Your task to perform on an android device: Open the calendar and show me this week's events? Image 0: 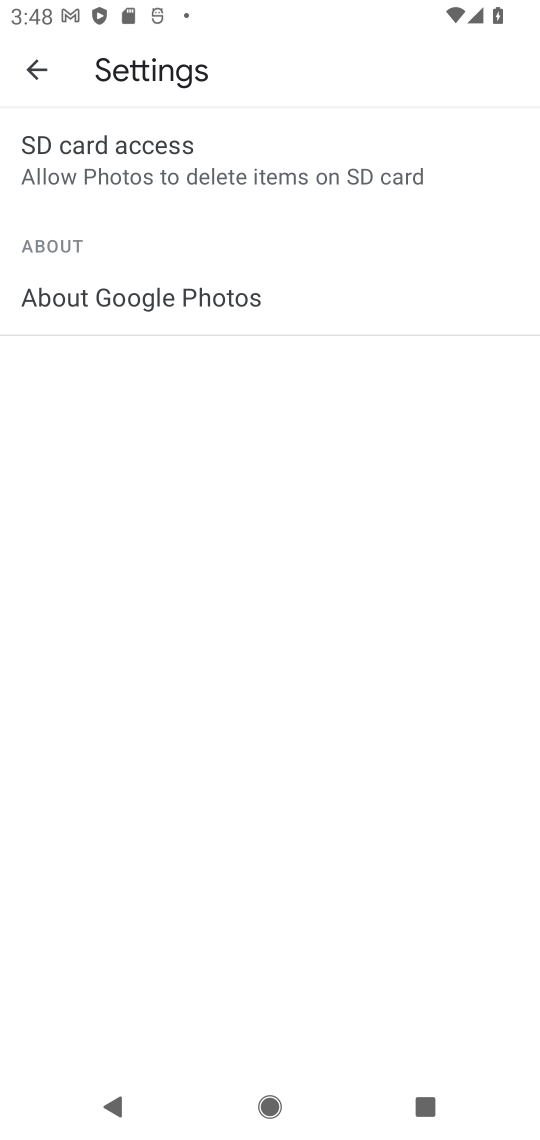
Step 0: press home button
Your task to perform on an android device: Open the calendar and show me this week's events? Image 1: 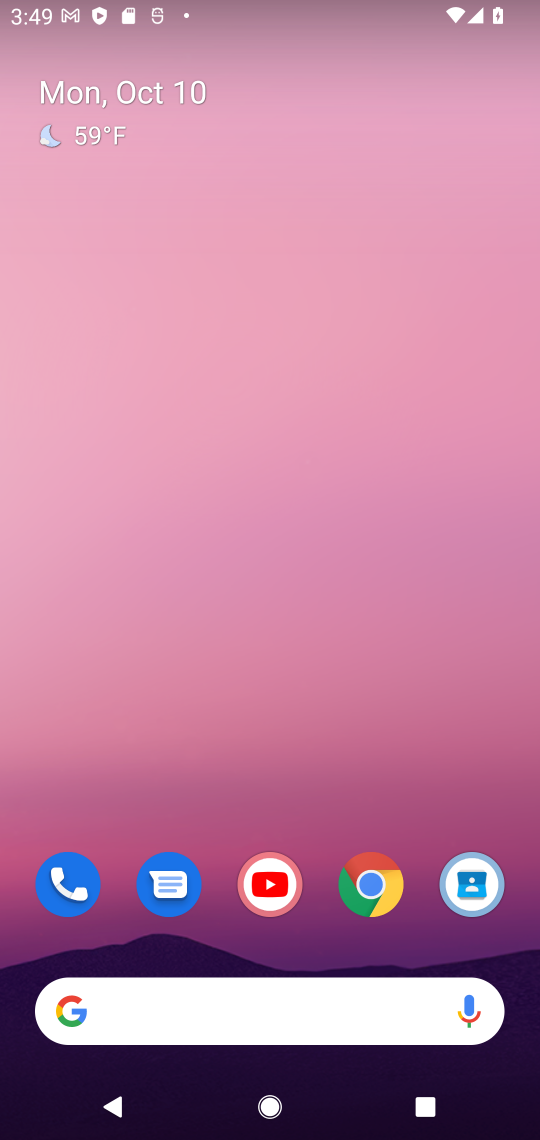
Step 1: drag from (328, 963) to (349, 6)
Your task to perform on an android device: Open the calendar and show me this week's events? Image 2: 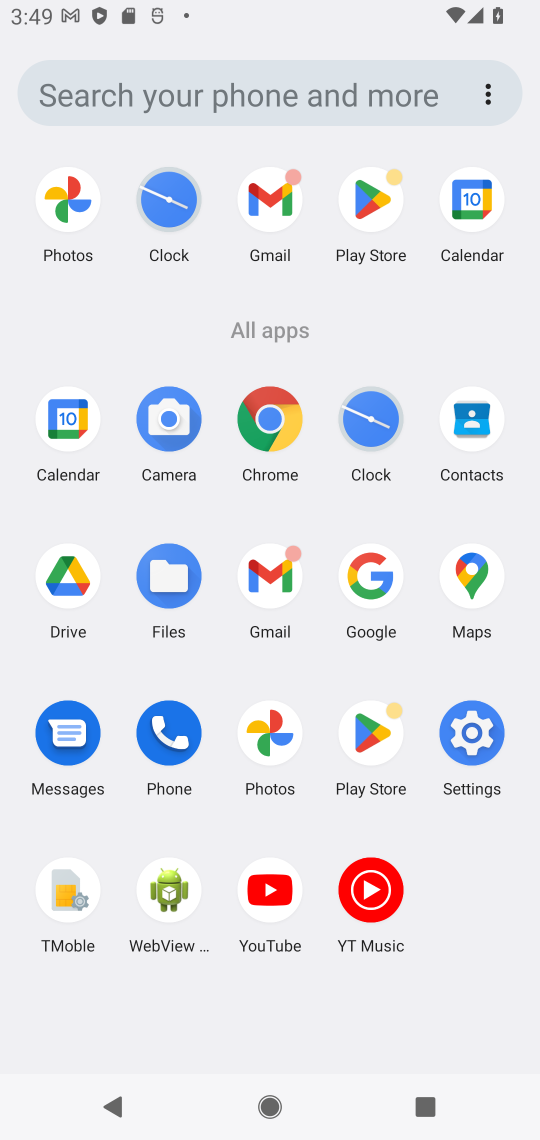
Step 2: click (476, 205)
Your task to perform on an android device: Open the calendar and show me this week's events? Image 3: 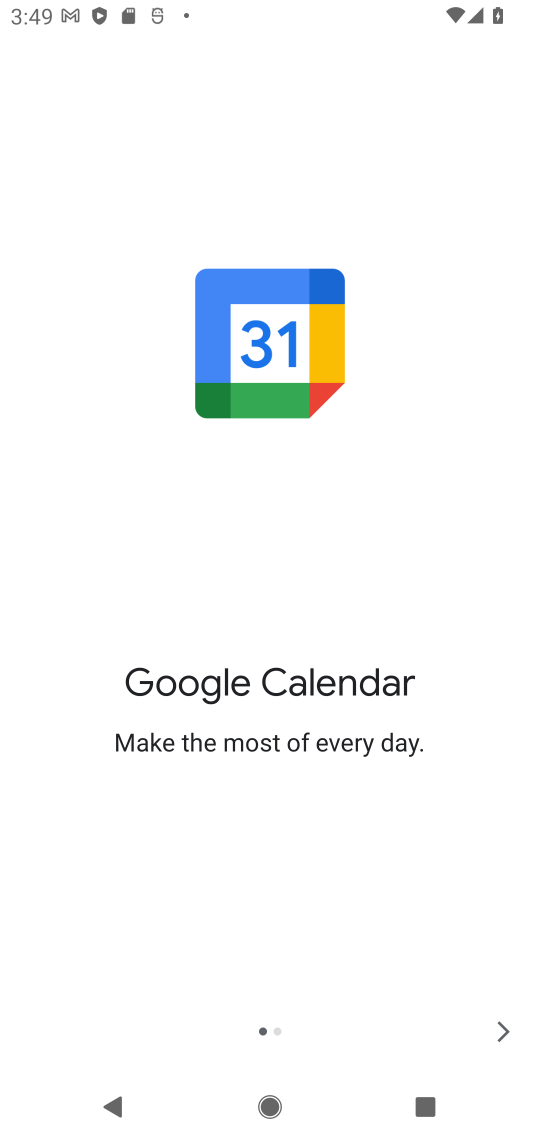
Step 3: click (512, 1039)
Your task to perform on an android device: Open the calendar and show me this week's events? Image 4: 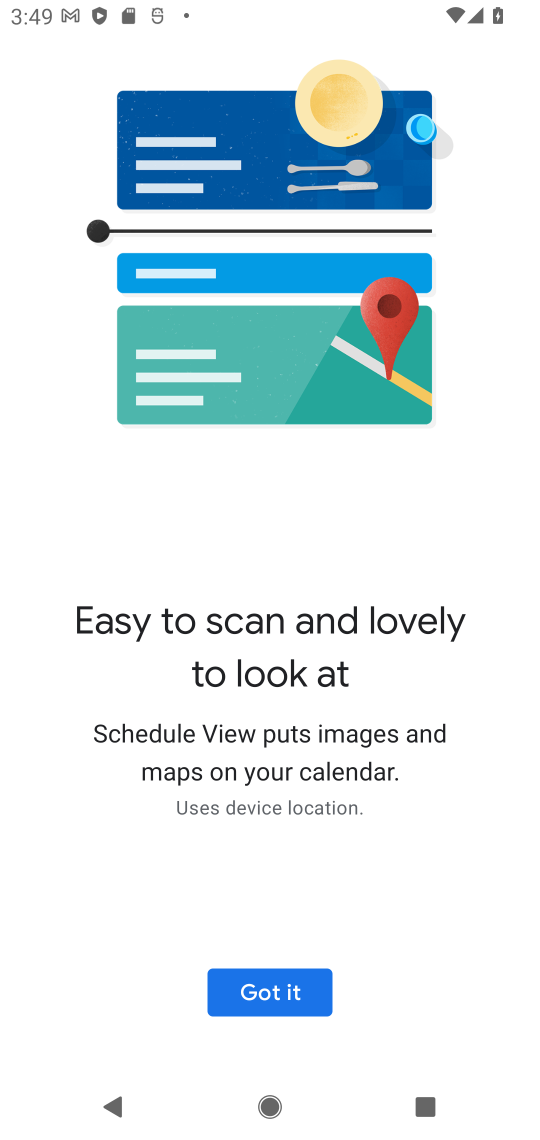
Step 4: click (281, 977)
Your task to perform on an android device: Open the calendar and show me this week's events? Image 5: 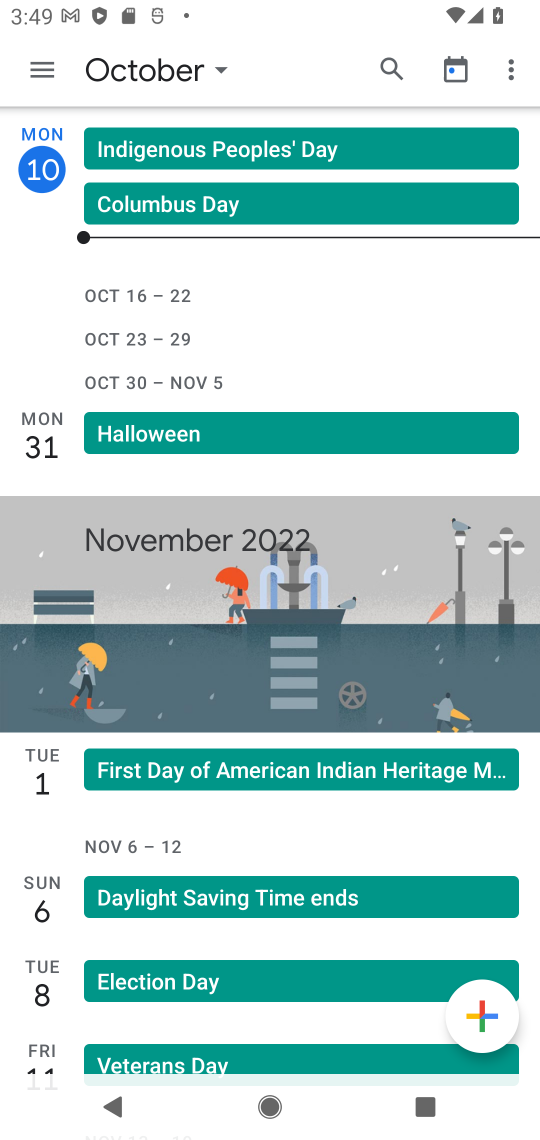
Step 5: click (40, 51)
Your task to perform on an android device: Open the calendar and show me this week's events? Image 6: 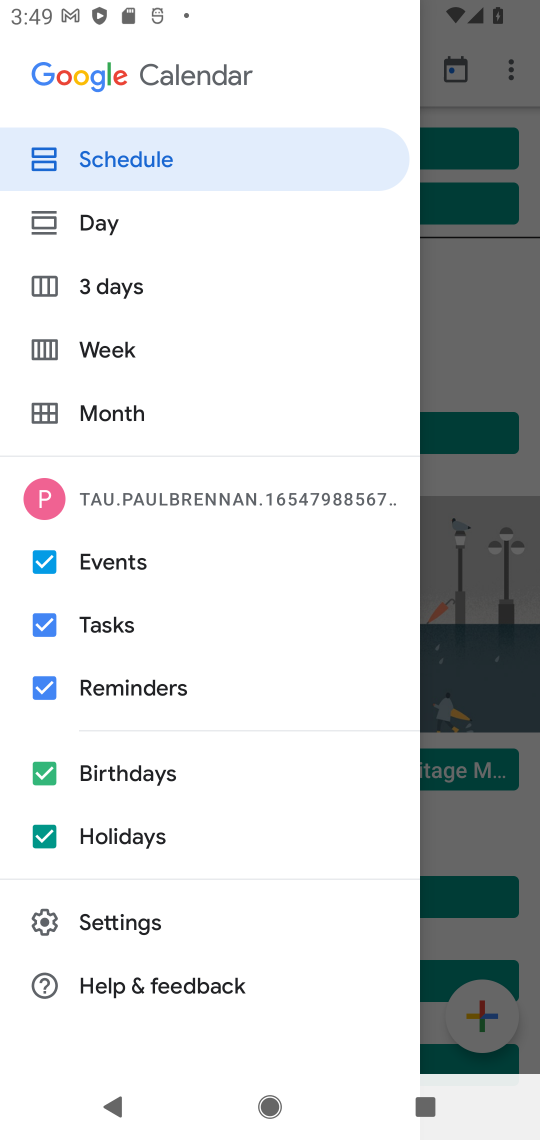
Step 6: click (51, 628)
Your task to perform on an android device: Open the calendar and show me this week's events? Image 7: 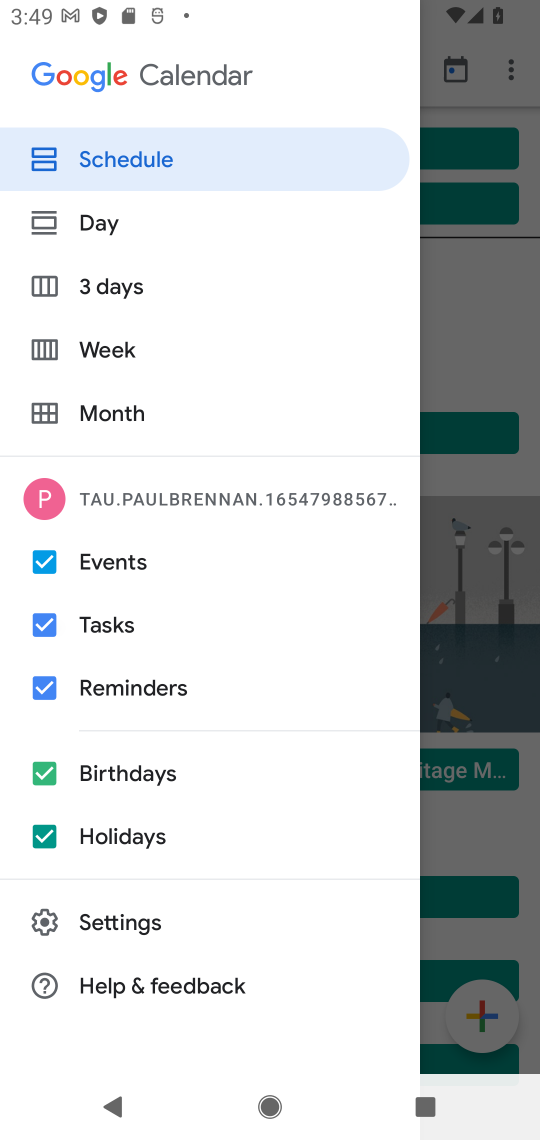
Step 7: click (39, 696)
Your task to perform on an android device: Open the calendar and show me this week's events? Image 8: 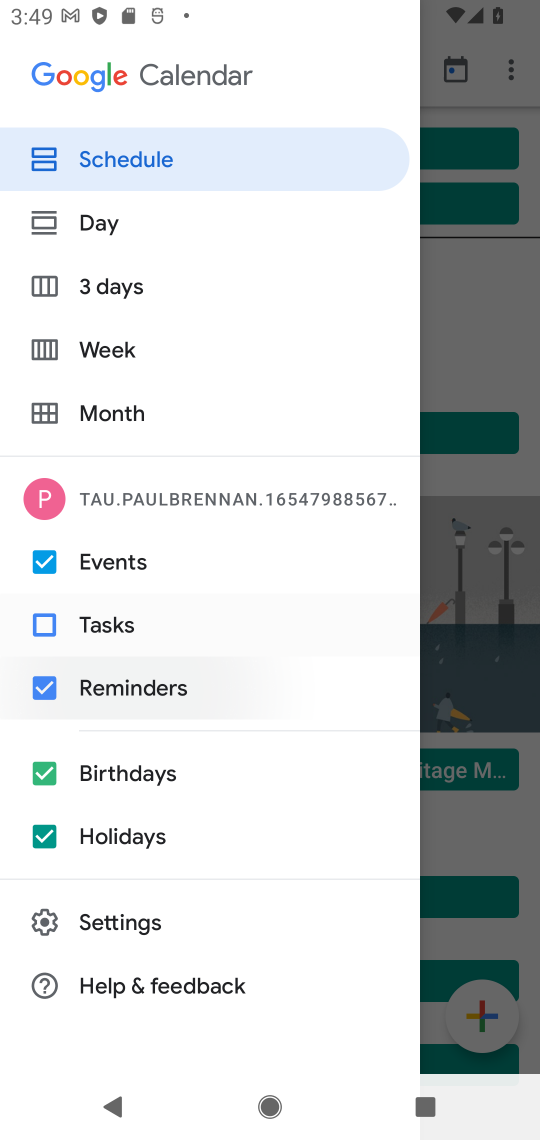
Step 8: click (33, 781)
Your task to perform on an android device: Open the calendar and show me this week's events? Image 9: 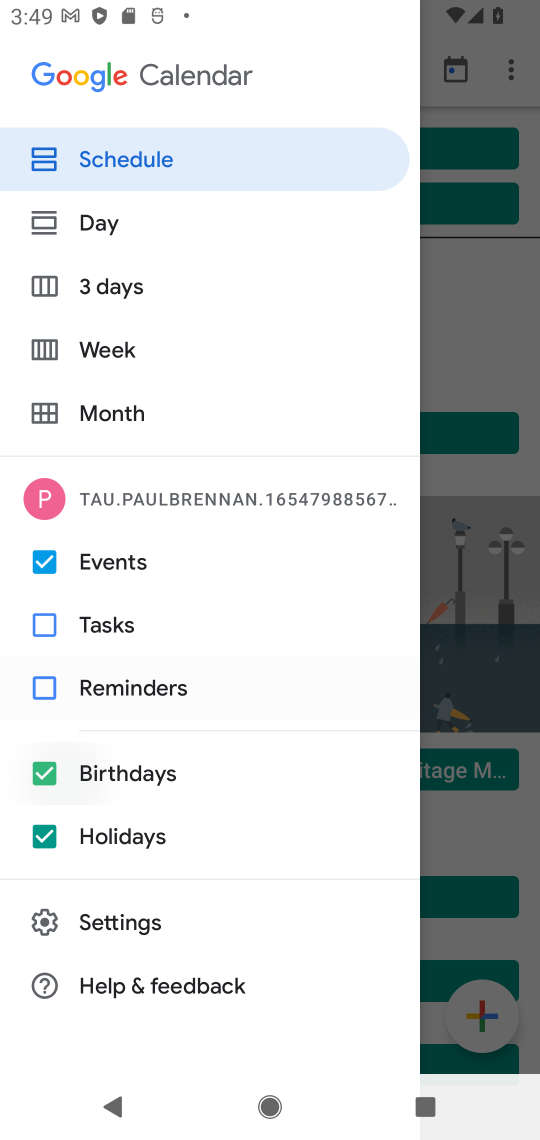
Step 9: click (33, 838)
Your task to perform on an android device: Open the calendar and show me this week's events? Image 10: 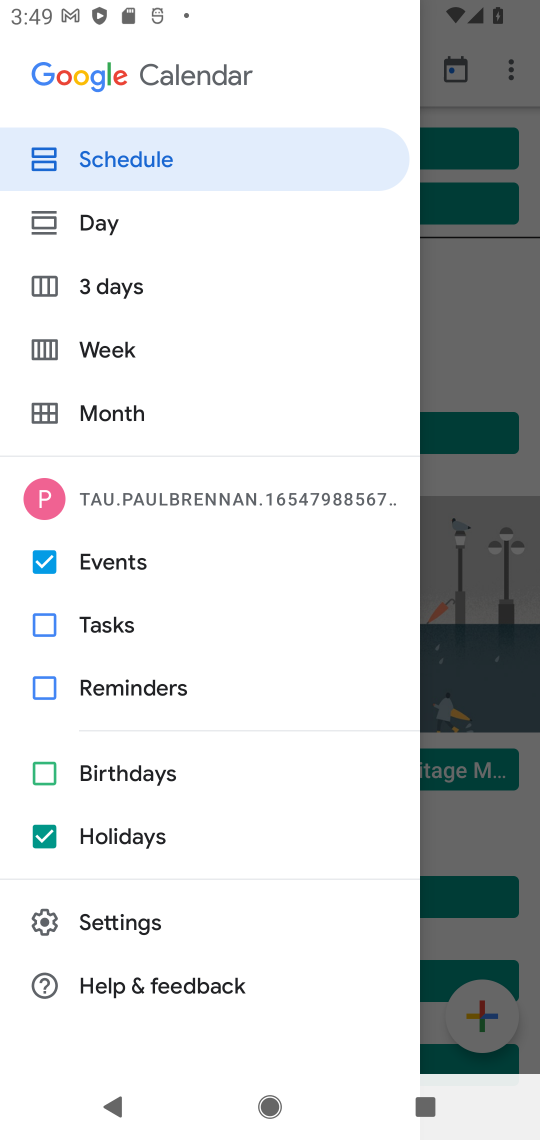
Step 10: click (46, 837)
Your task to perform on an android device: Open the calendar and show me this week's events? Image 11: 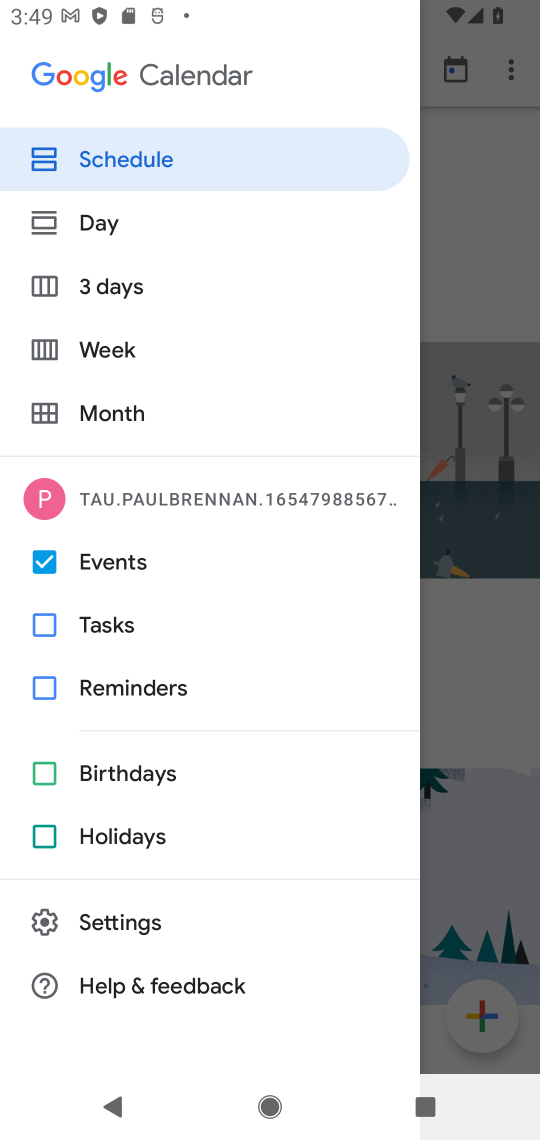
Step 11: click (41, 354)
Your task to perform on an android device: Open the calendar and show me this week's events? Image 12: 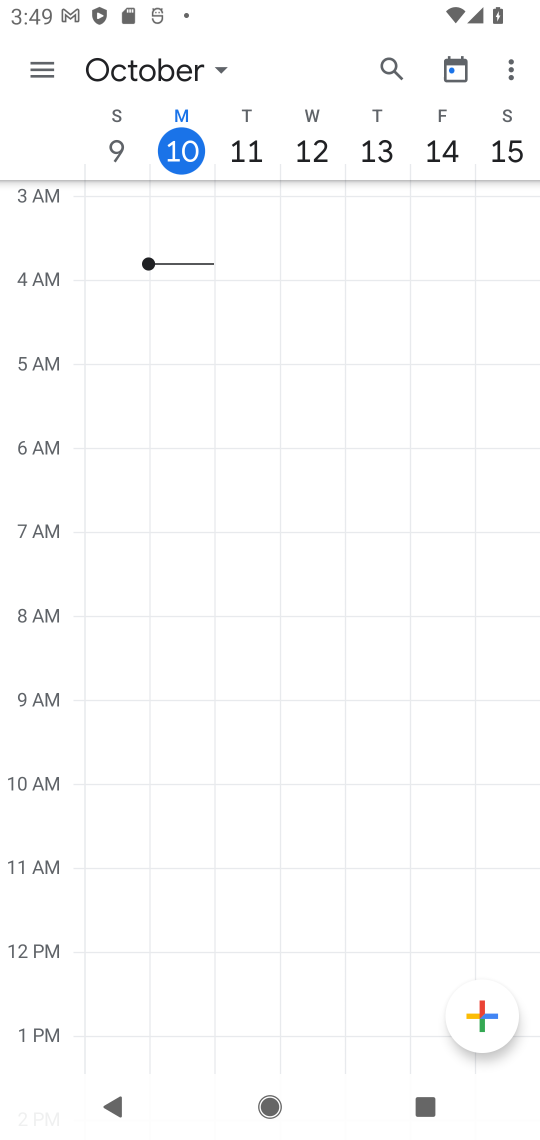
Step 12: task complete